Your task to perform on an android device: turn notification dots off Image 0: 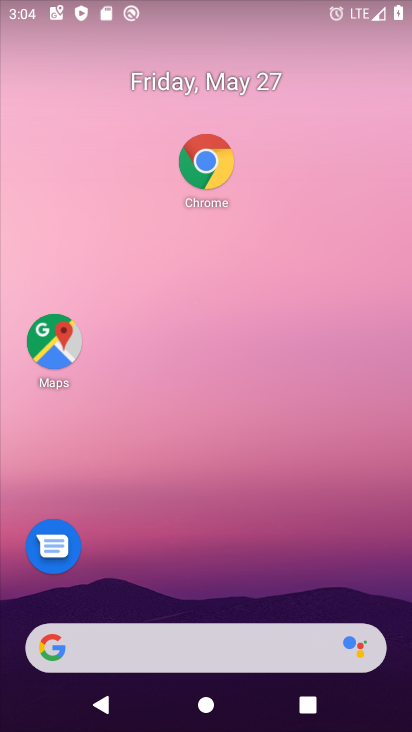
Step 0: drag from (143, 511) to (168, 192)
Your task to perform on an android device: turn notification dots off Image 1: 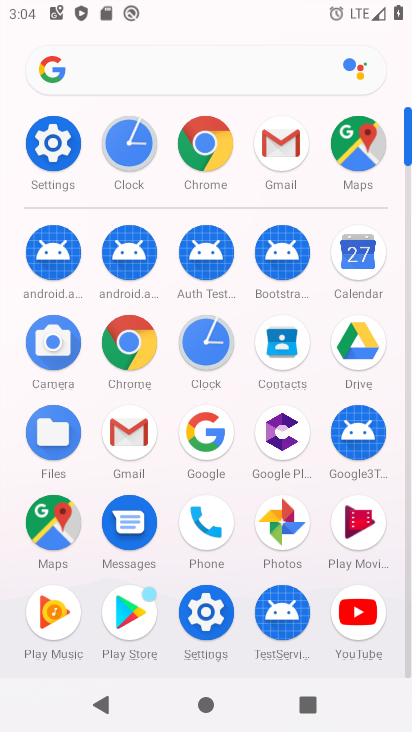
Step 1: click (49, 141)
Your task to perform on an android device: turn notification dots off Image 2: 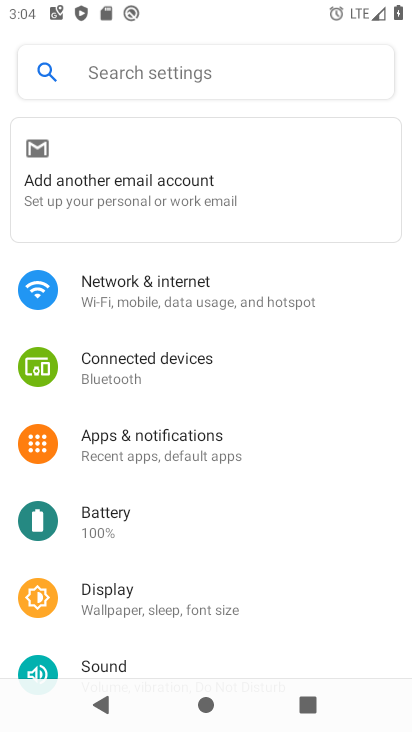
Step 2: click (177, 437)
Your task to perform on an android device: turn notification dots off Image 3: 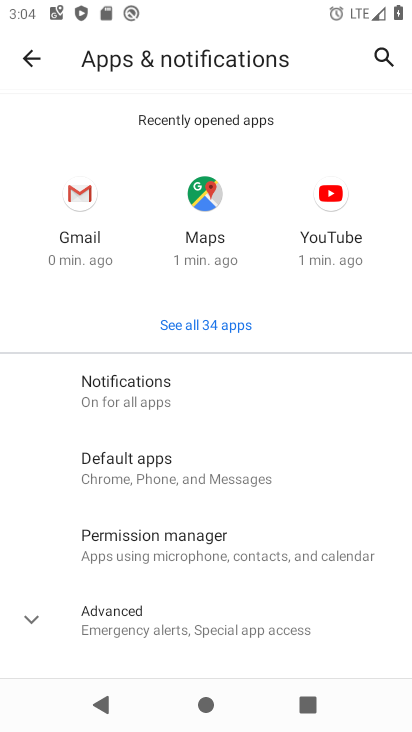
Step 3: click (155, 369)
Your task to perform on an android device: turn notification dots off Image 4: 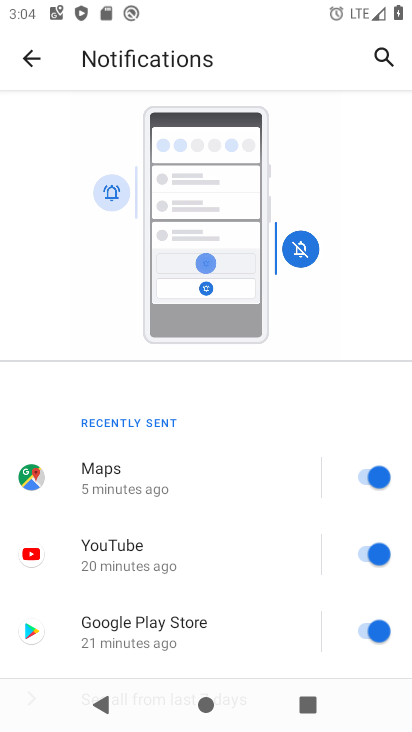
Step 4: click (134, 399)
Your task to perform on an android device: turn notification dots off Image 5: 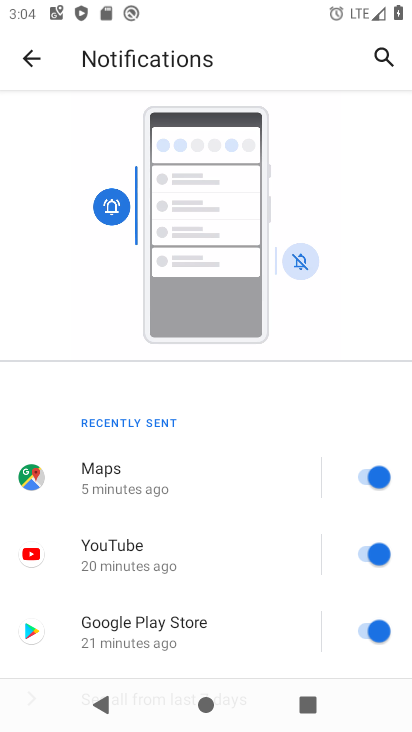
Step 5: drag from (157, 502) to (219, 164)
Your task to perform on an android device: turn notification dots off Image 6: 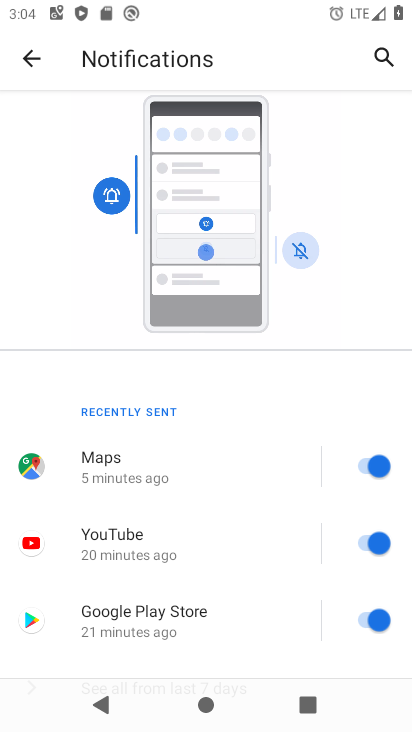
Step 6: drag from (188, 610) to (325, 232)
Your task to perform on an android device: turn notification dots off Image 7: 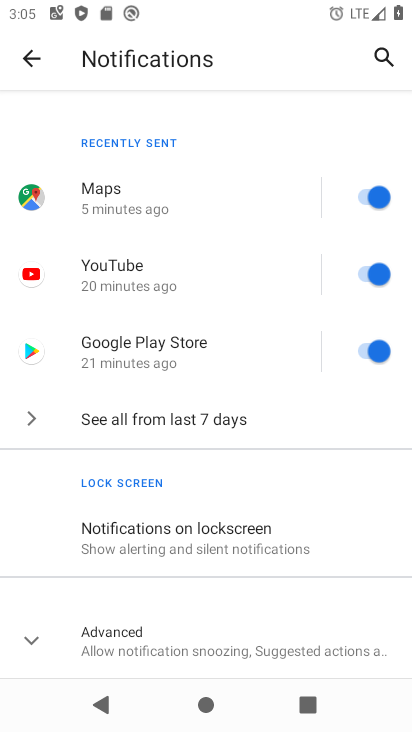
Step 7: click (125, 623)
Your task to perform on an android device: turn notification dots off Image 8: 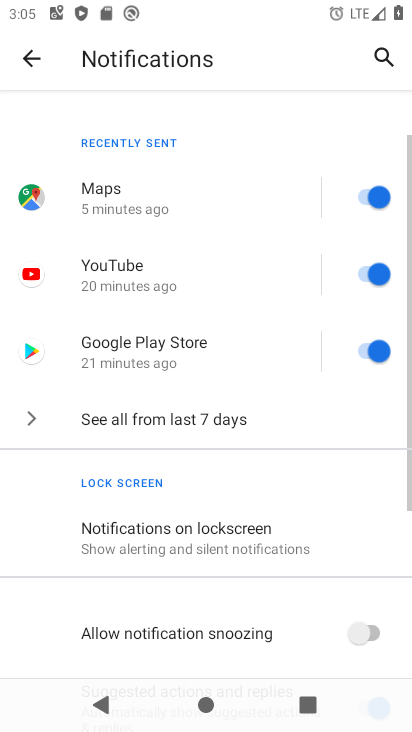
Step 8: drag from (142, 611) to (224, 205)
Your task to perform on an android device: turn notification dots off Image 9: 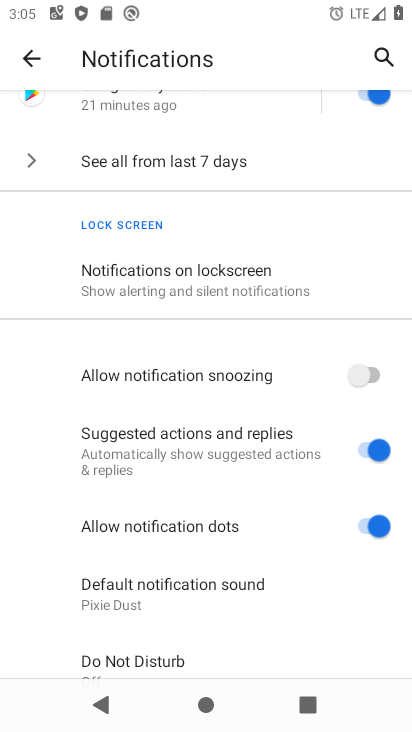
Step 9: click (364, 524)
Your task to perform on an android device: turn notification dots off Image 10: 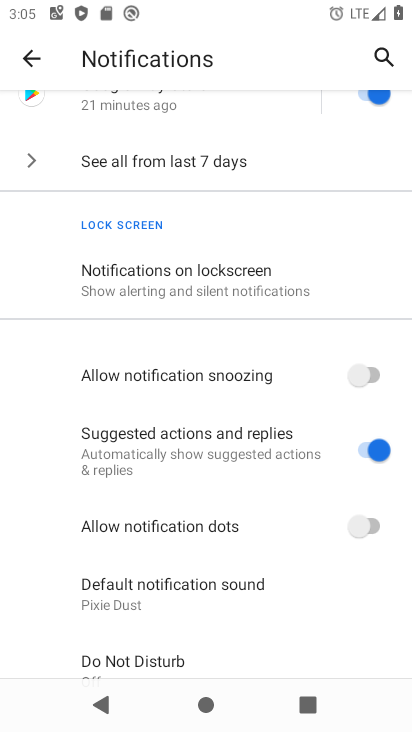
Step 10: task complete